Your task to perform on an android device: Go to calendar. Show me events next week Image 0: 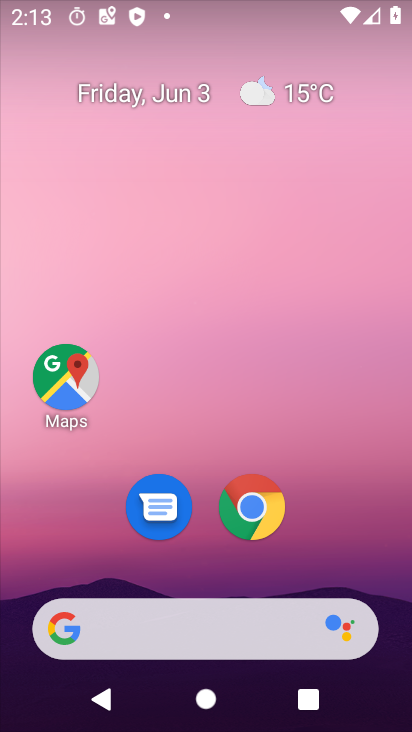
Step 0: drag from (394, 649) to (321, 56)
Your task to perform on an android device: Go to calendar. Show me events next week Image 1: 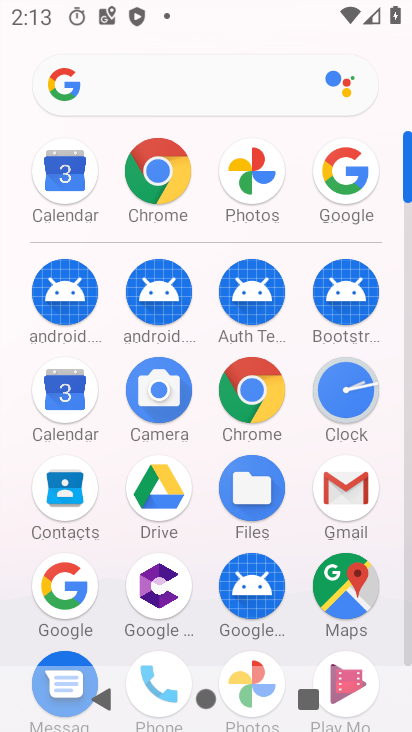
Step 1: click (74, 398)
Your task to perform on an android device: Go to calendar. Show me events next week Image 2: 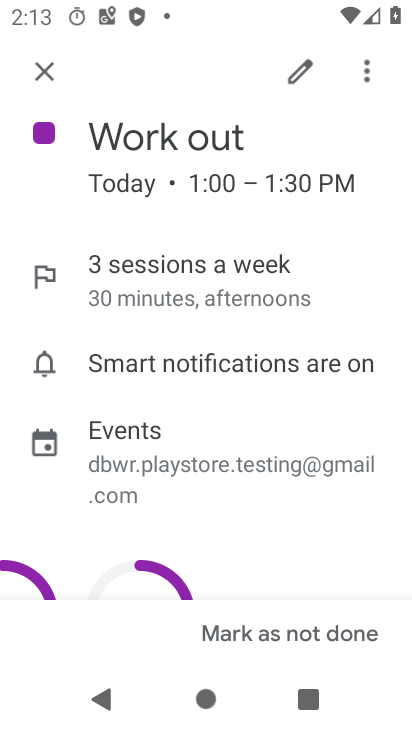
Step 2: press back button
Your task to perform on an android device: Go to calendar. Show me events next week Image 3: 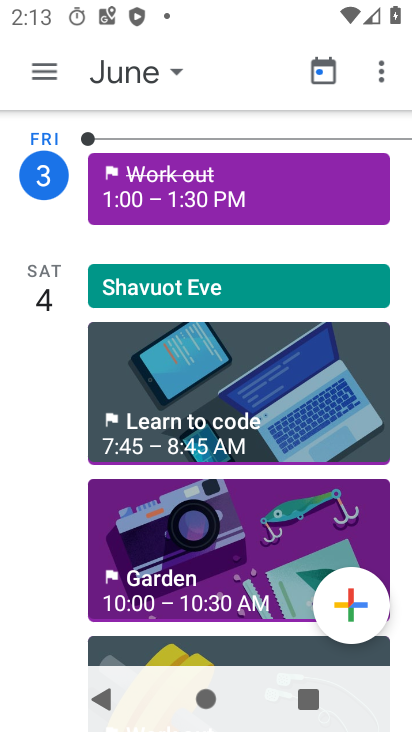
Step 3: click (149, 54)
Your task to perform on an android device: Go to calendar. Show me events next week Image 4: 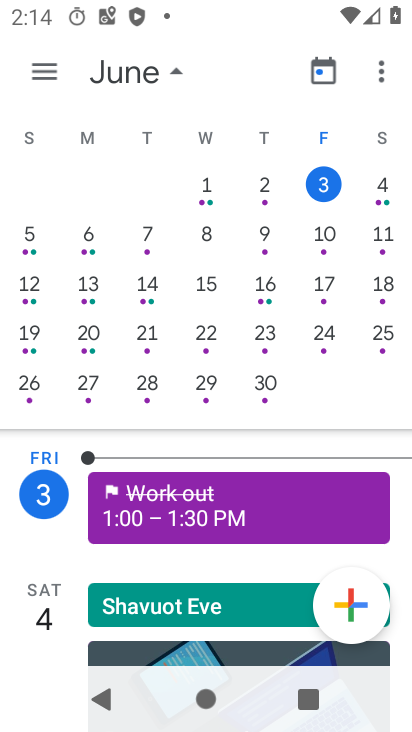
Step 4: click (381, 244)
Your task to perform on an android device: Go to calendar. Show me events next week Image 5: 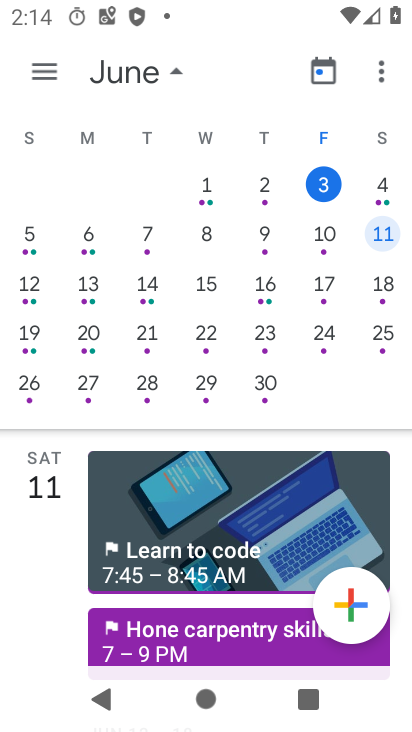
Step 5: click (289, 495)
Your task to perform on an android device: Go to calendar. Show me events next week Image 6: 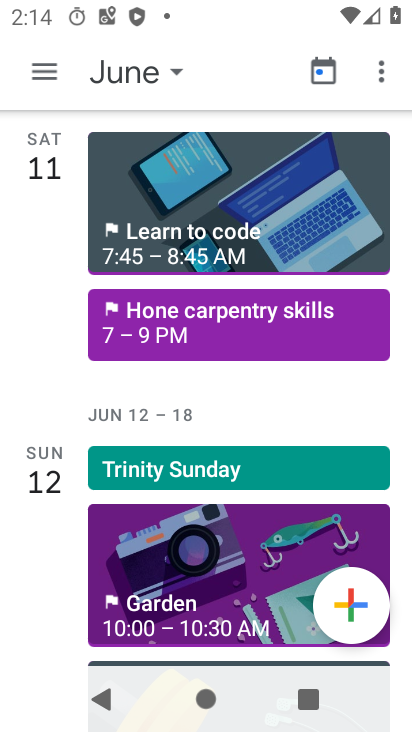
Step 6: click (262, 209)
Your task to perform on an android device: Go to calendar. Show me events next week Image 7: 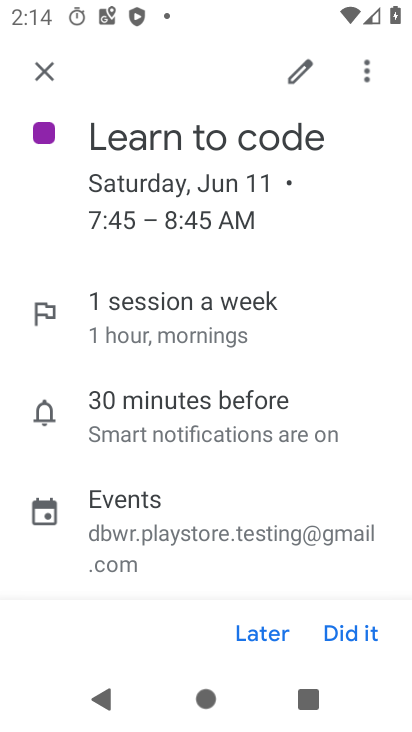
Step 7: task complete